Your task to perform on an android device: set the timer Image 0: 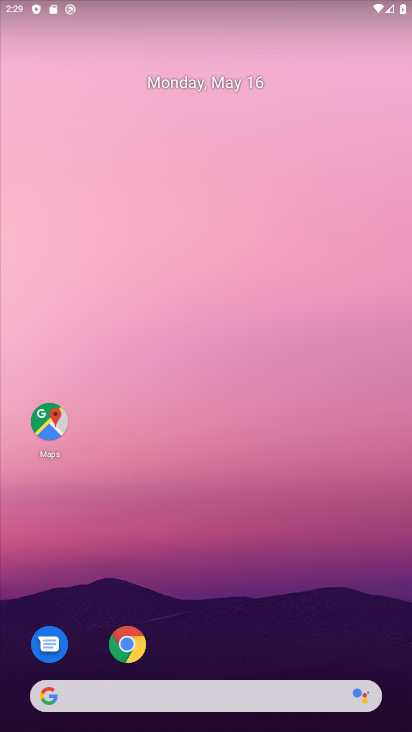
Step 0: drag from (281, 627) to (258, 190)
Your task to perform on an android device: set the timer Image 1: 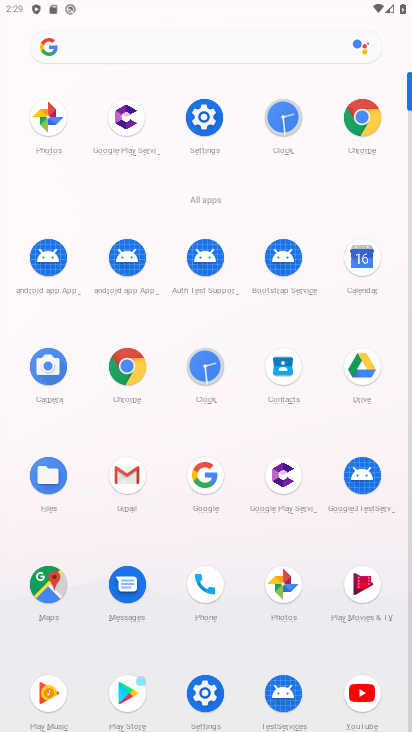
Step 1: click (197, 374)
Your task to perform on an android device: set the timer Image 2: 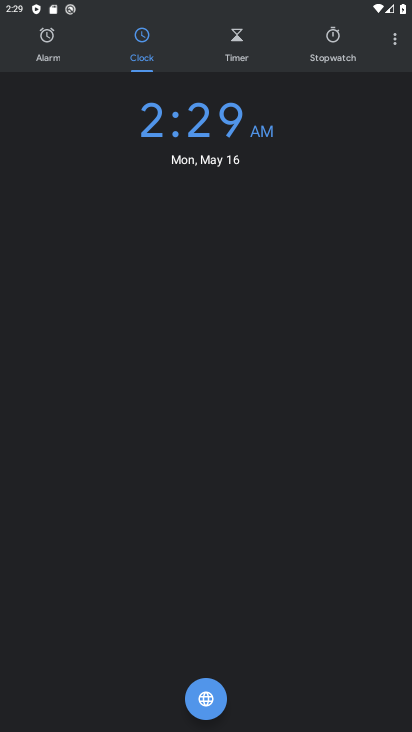
Step 2: click (233, 64)
Your task to perform on an android device: set the timer Image 3: 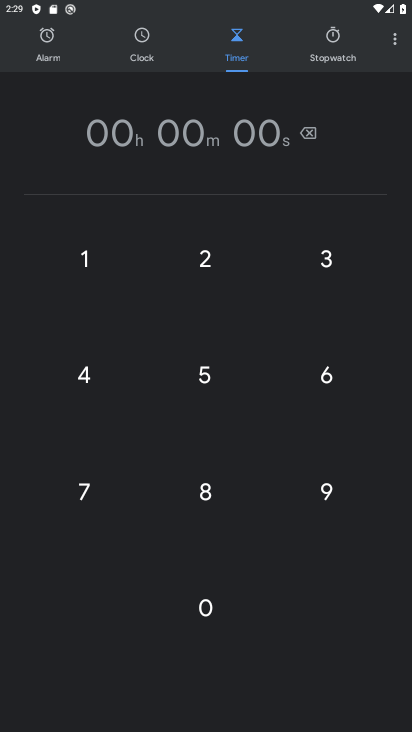
Step 3: click (188, 378)
Your task to perform on an android device: set the timer Image 4: 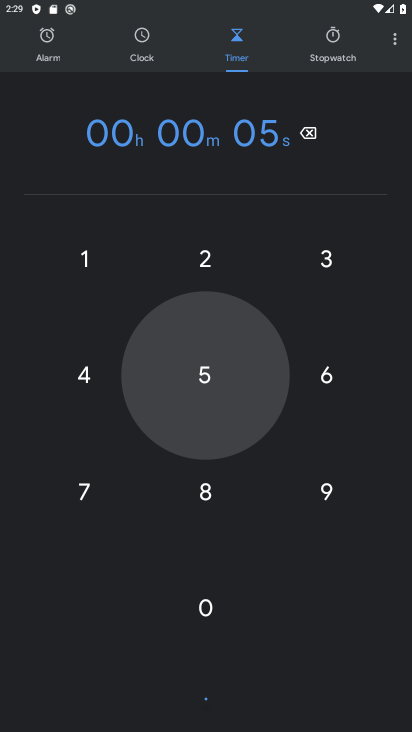
Step 4: click (206, 270)
Your task to perform on an android device: set the timer Image 5: 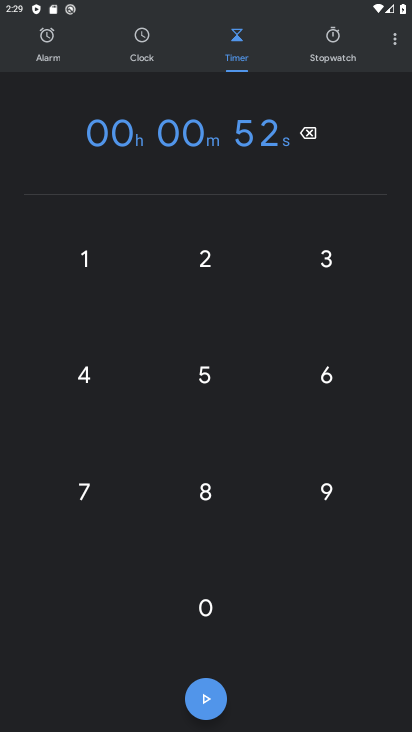
Step 5: click (201, 269)
Your task to perform on an android device: set the timer Image 6: 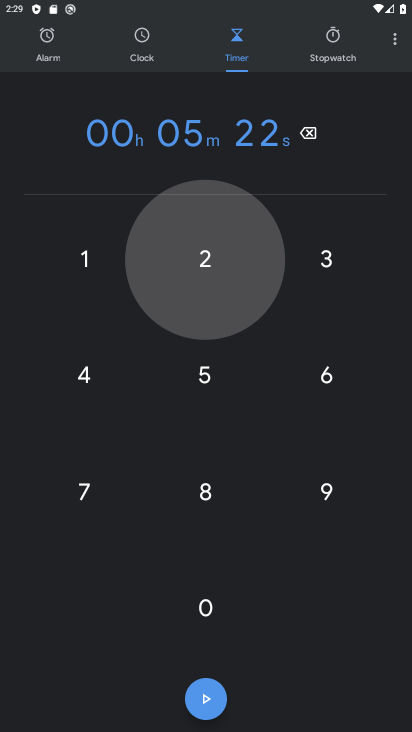
Step 6: click (198, 372)
Your task to perform on an android device: set the timer Image 7: 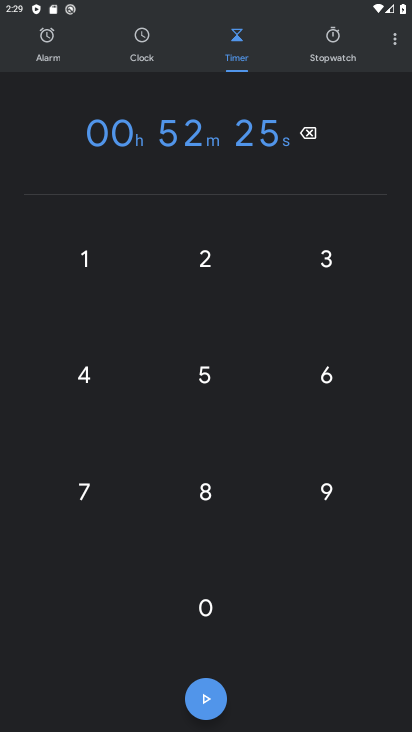
Step 7: click (206, 697)
Your task to perform on an android device: set the timer Image 8: 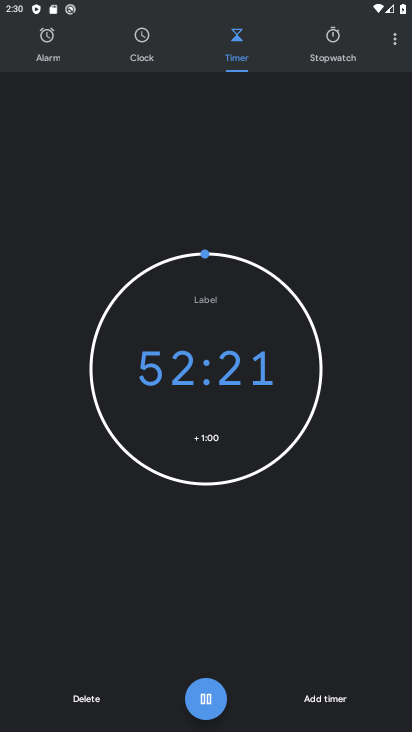
Step 8: task complete